Your task to perform on an android device: change keyboard looks Image 0: 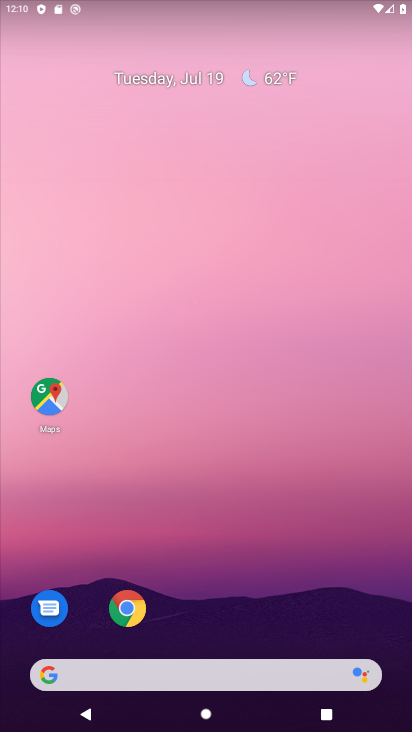
Step 0: press home button
Your task to perform on an android device: change keyboard looks Image 1: 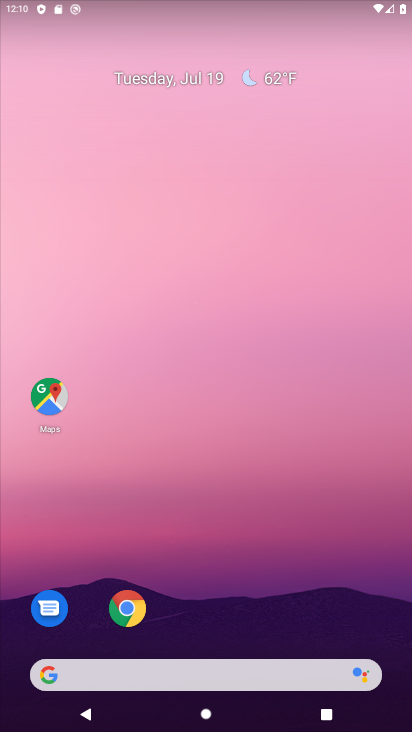
Step 1: drag from (215, 641) to (245, 67)
Your task to perform on an android device: change keyboard looks Image 2: 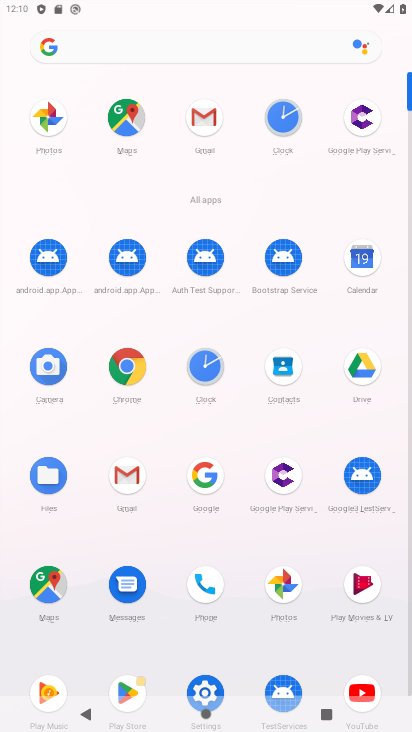
Step 2: click (201, 675)
Your task to perform on an android device: change keyboard looks Image 3: 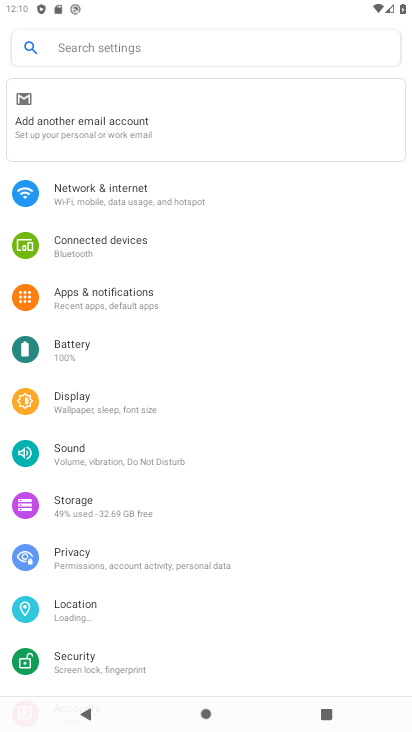
Step 3: drag from (175, 651) to (208, 115)
Your task to perform on an android device: change keyboard looks Image 4: 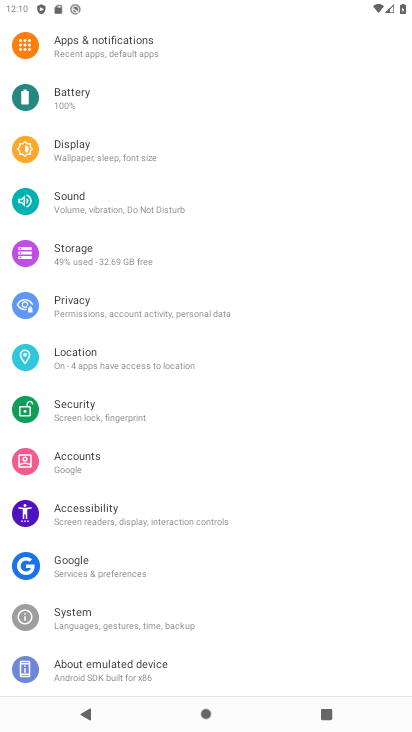
Step 4: click (98, 607)
Your task to perform on an android device: change keyboard looks Image 5: 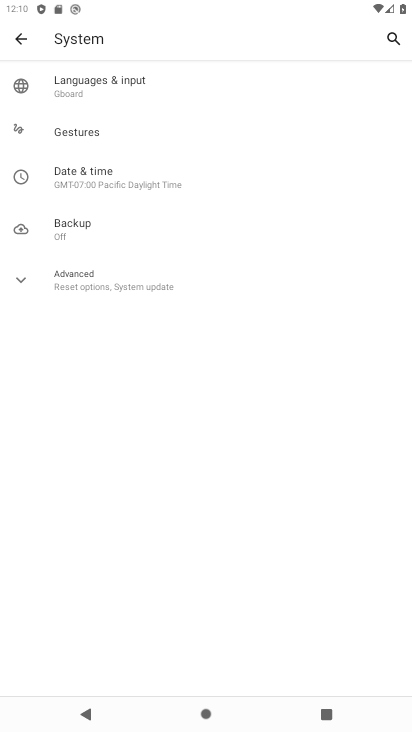
Step 5: click (19, 275)
Your task to perform on an android device: change keyboard looks Image 6: 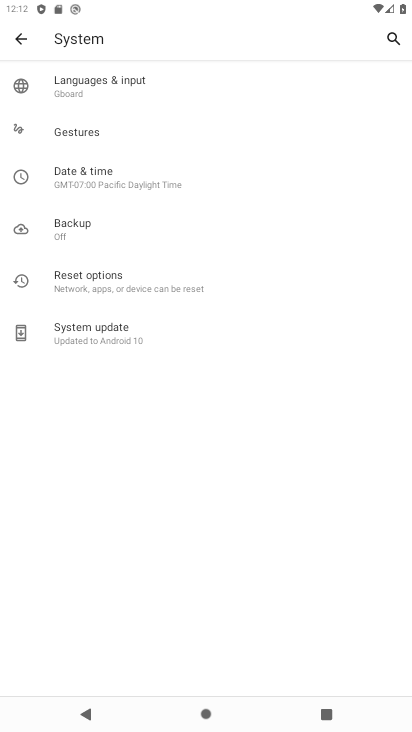
Step 6: click (83, 83)
Your task to perform on an android device: change keyboard looks Image 7: 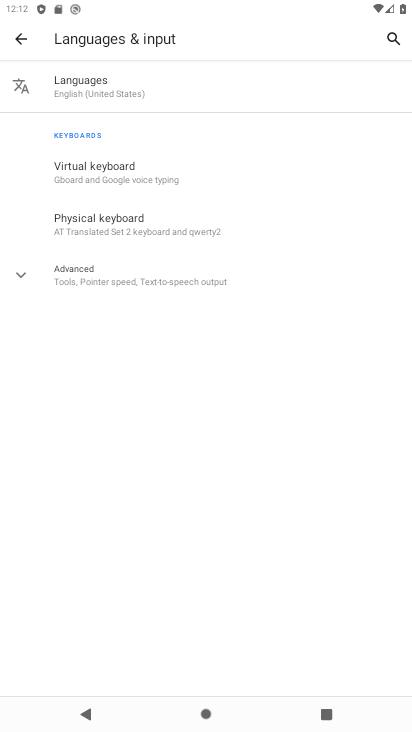
Step 7: click (72, 173)
Your task to perform on an android device: change keyboard looks Image 8: 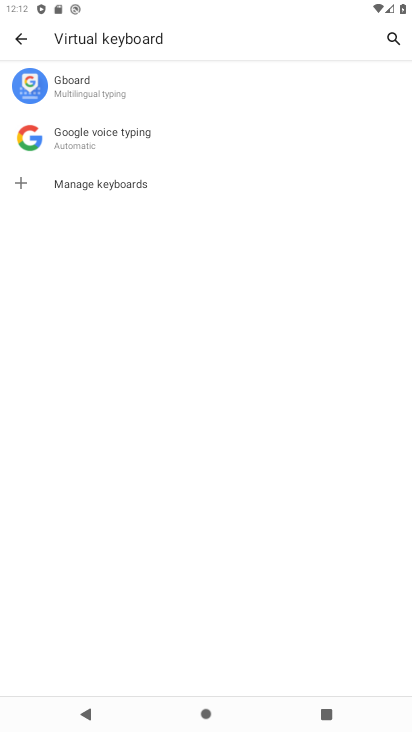
Step 8: click (96, 79)
Your task to perform on an android device: change keyboard looks Image 9: 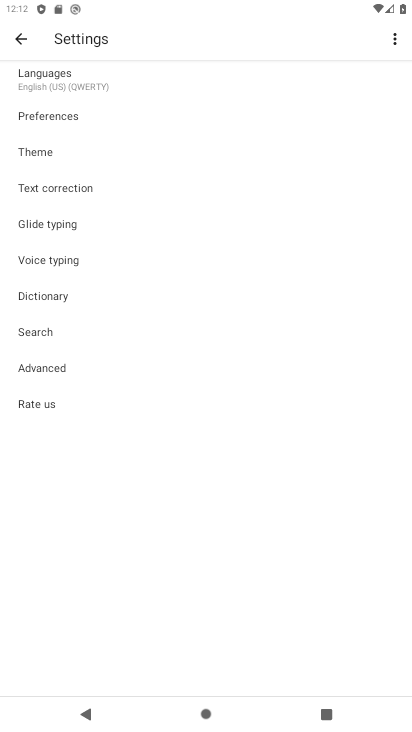
Step 9: click (63, 144)
Your task to perform on an android device: change keyboard looks Image 10: 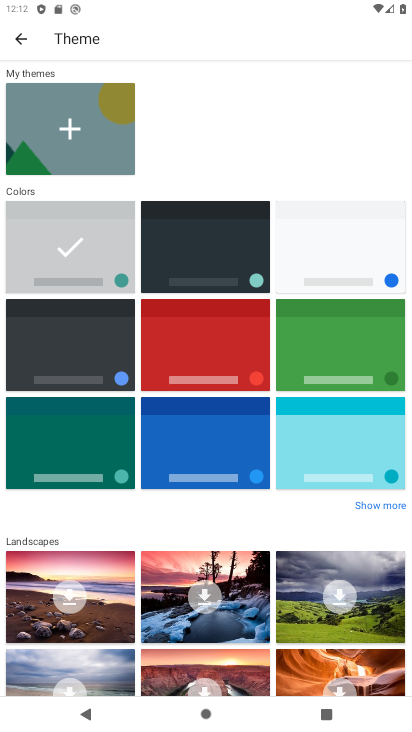
Step 10: click (356, 353)
Your task to perform on an android device: change keyboard looks Image 11: 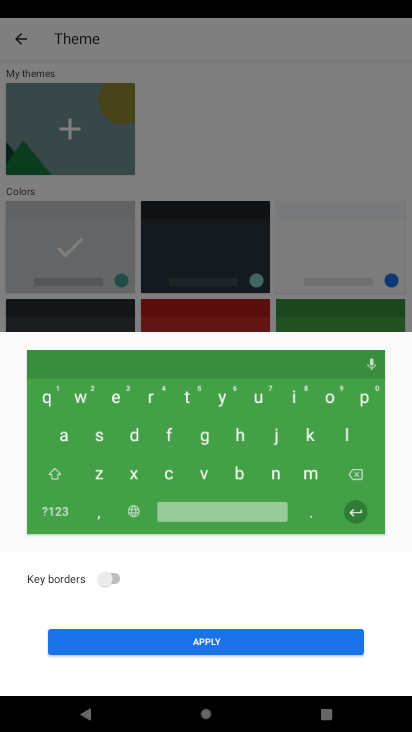
Step 11: click (200, 644)
Your task to perform on an android device: change keyboard looks Image 12: 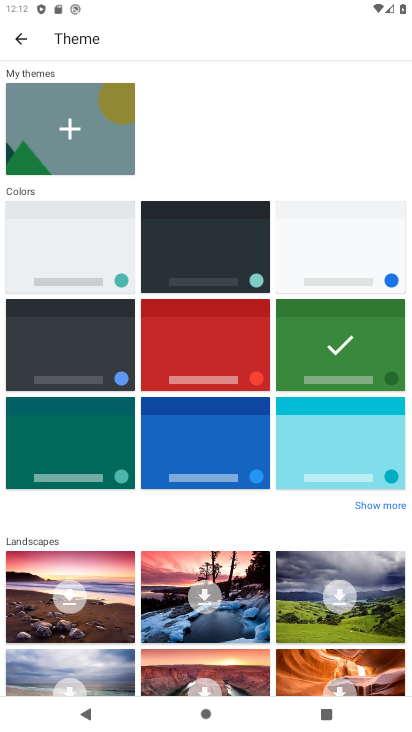
Step 12: task complete